Your task to perform on an android device: check google app version Image 0: 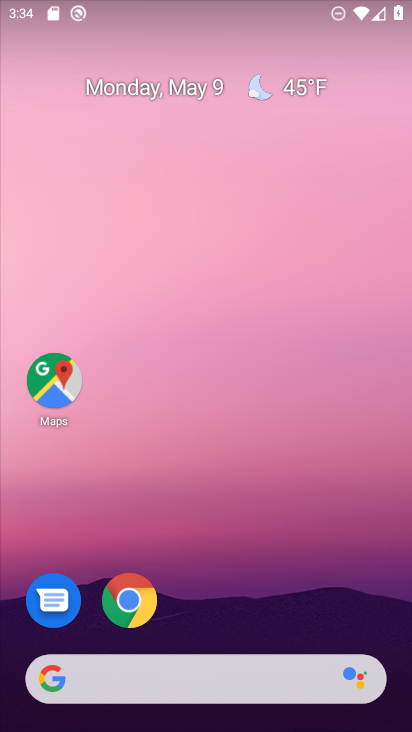
Step 0: drag from (288, 489) to (105, 0)
Your task to perform on an android device: check google app version Image 1: 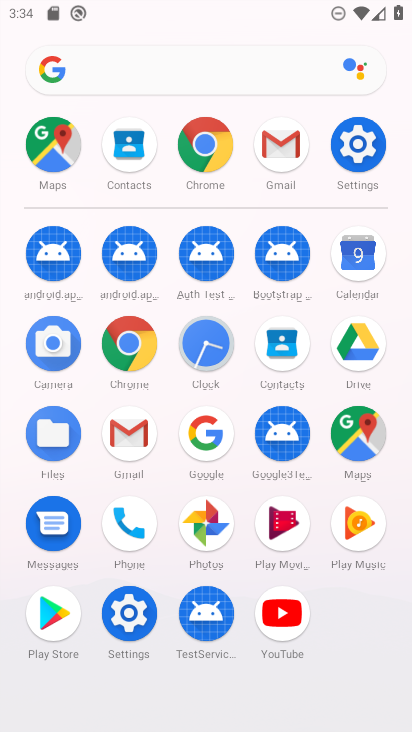
Step 1: drag from (0, 387) to (5, 132)
Your task to perform on an android device: check google app version Image 2: 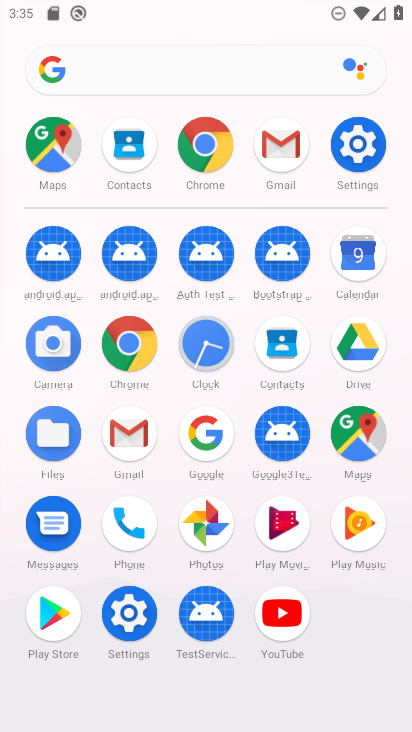
Step 2: click (206, 428)
Your task to perform on an android device: check google app version Image 3: 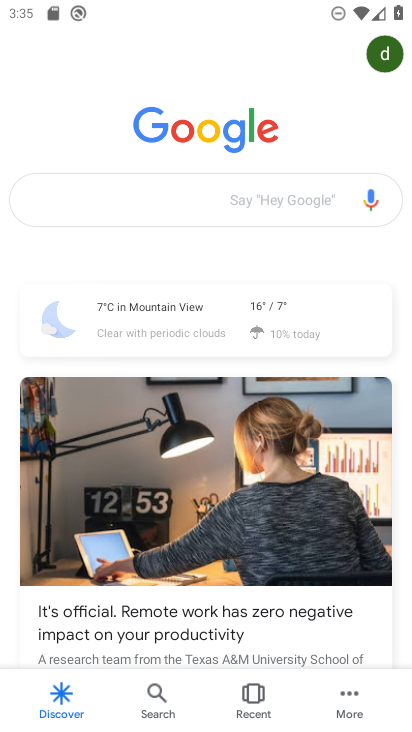
Step 3: drag from (351, 689) to (322, 218)
Your task to perform on an android device: check google app version Image 4: 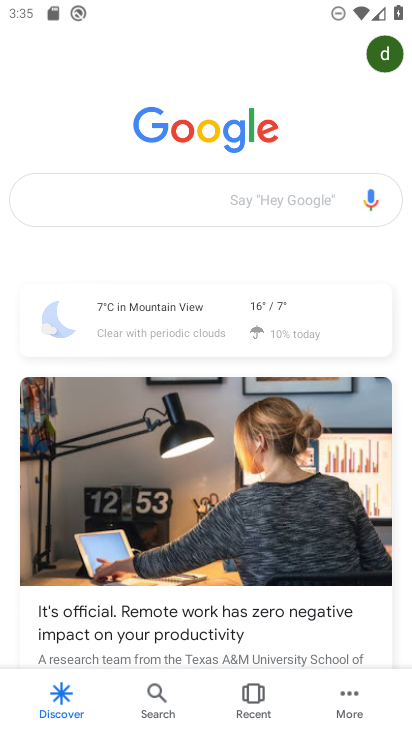
Step 4: drag from (242, 496) to (240, 184)
Your task to perform on an android device: check google app version Image 5: 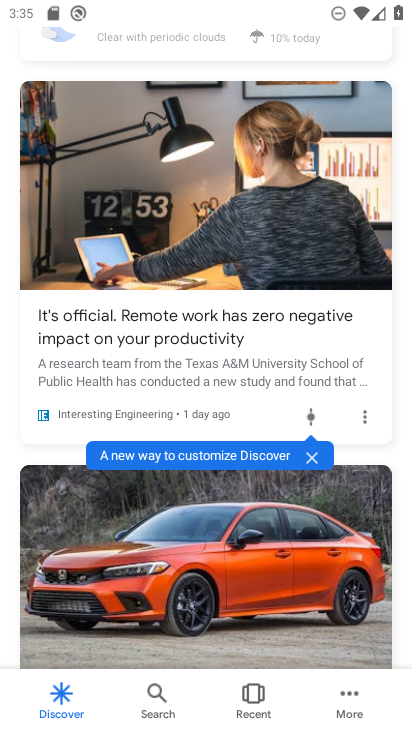
Step 5: click (352, 692)
Your task to perform on an android device: check google app version Image 6: 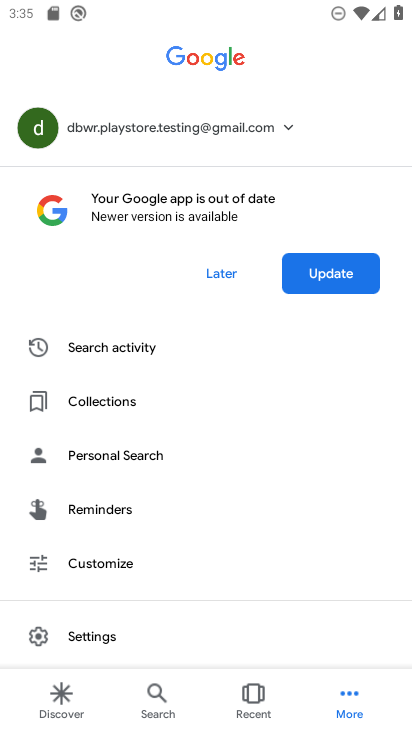
Step 6: click (91, 634)
Your task to perform on an android device: check google app version Image 7: 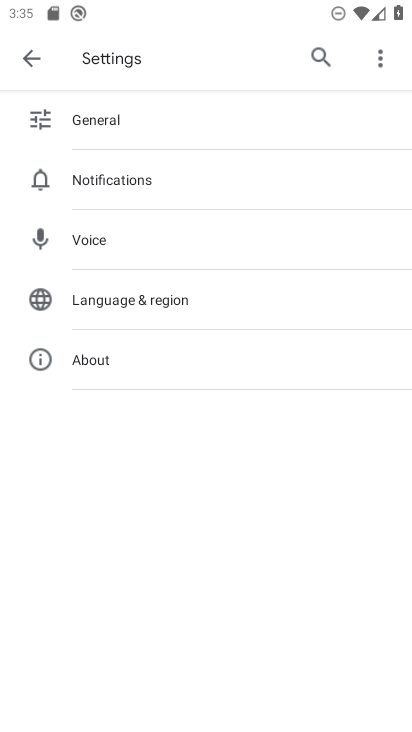
Step 7: click (90, 356)
Your task to perform on an android device: check google app version Image 8: 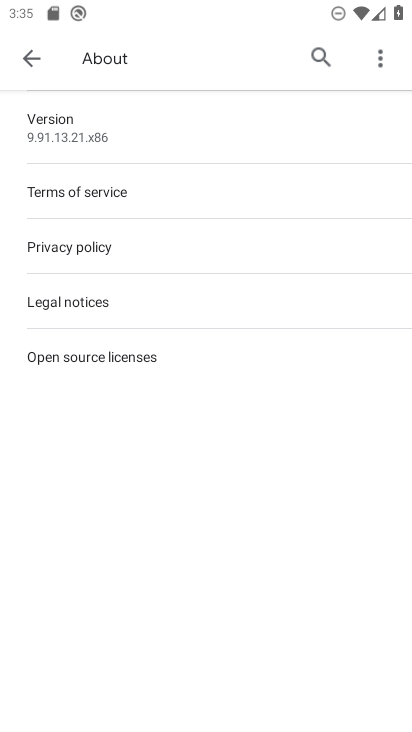
Step 8: task complete